Your task to perform on an android device: Go to Yahoo.com Image 0: 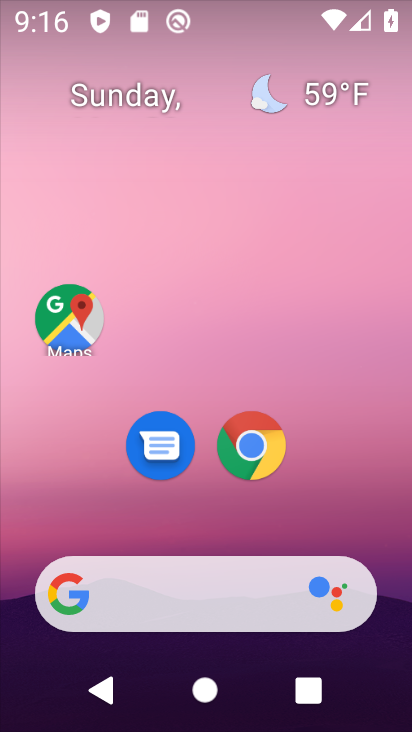
Step 0: click (272, 430)
Your task to perform on an android device: Go to Yahoo.com Image 1: 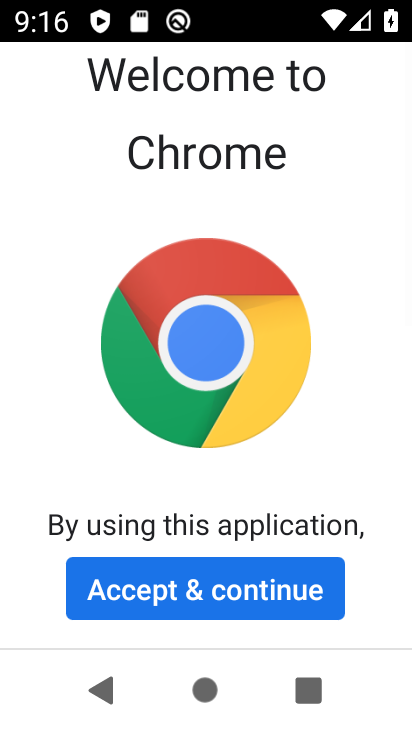
Step 1: click (258, 595)
Your task to perform on an android device: Go to Yahoo.com Image 2: 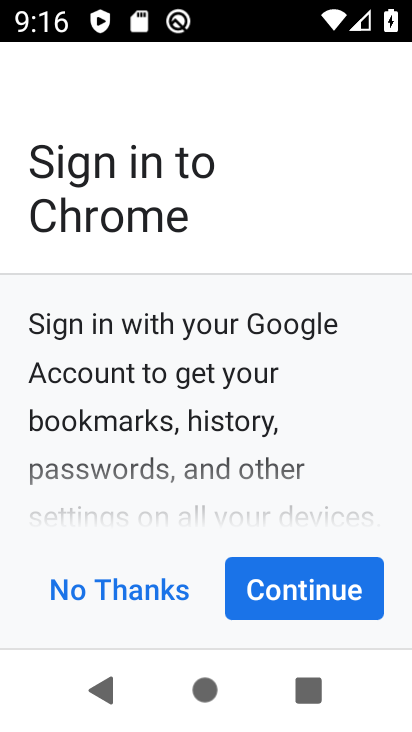
Step 2: click (338, 599)
Your task to perform on an android device: Go to Yahoo.com Image 3: 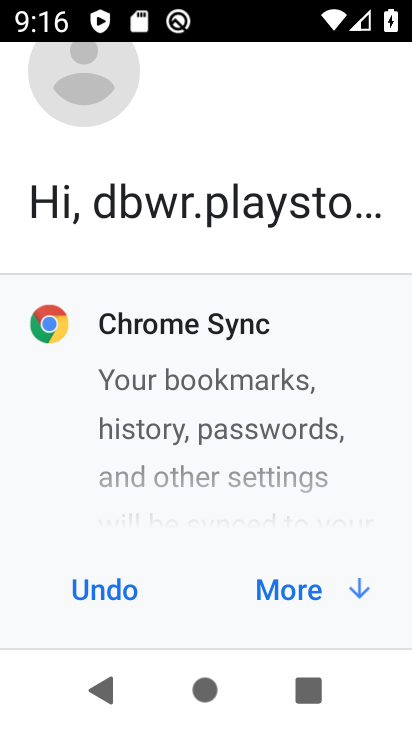
Step 3: click (324, 606)
Your task to perform on an android device: Go to Yahoo.com Image 4: 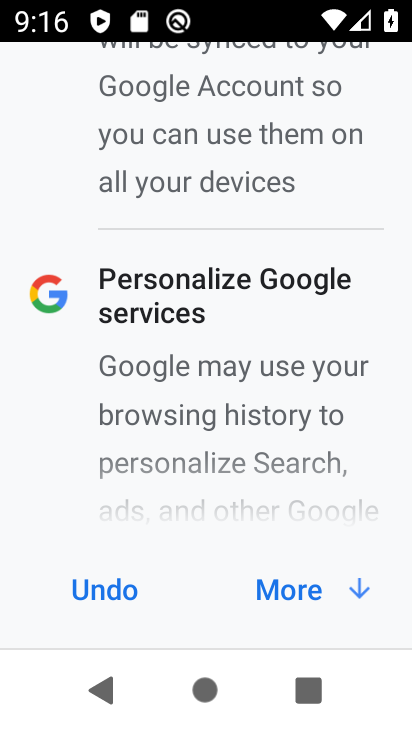
Step 4: click (319, 595)
Your task to perform on an android device: Go to Yahoo.com Image 5: 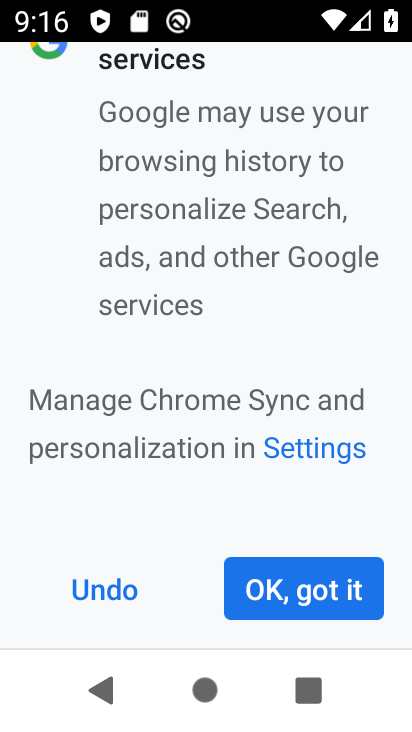
Step 5: click (323, 593)
Your task to perform on an android device: Go to Yahoo.com Image 6: 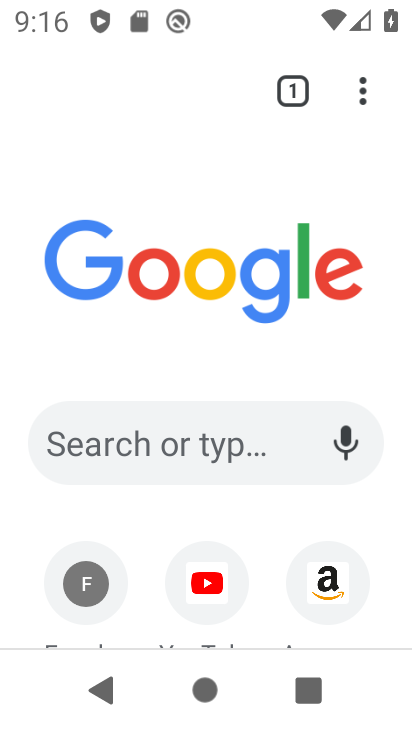
Step 6: drag from (355, 582) to (390, 489)
Your task to perform on an android device: Go to Yahoo.com Image 7: 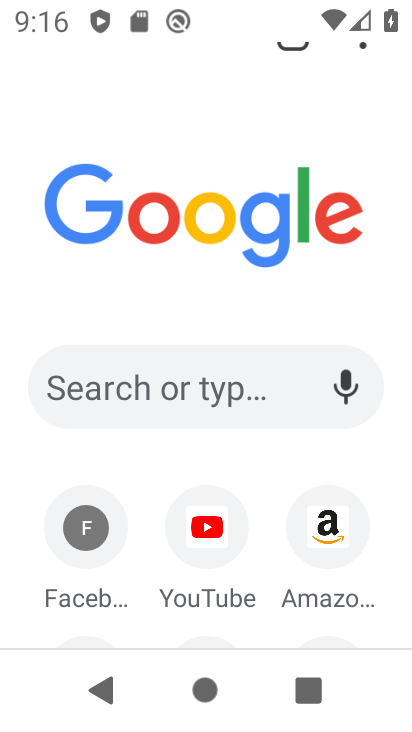
Step 7: click (313, 540)
Your task to perform on an android device: Go to Yahoo.com Image 8: 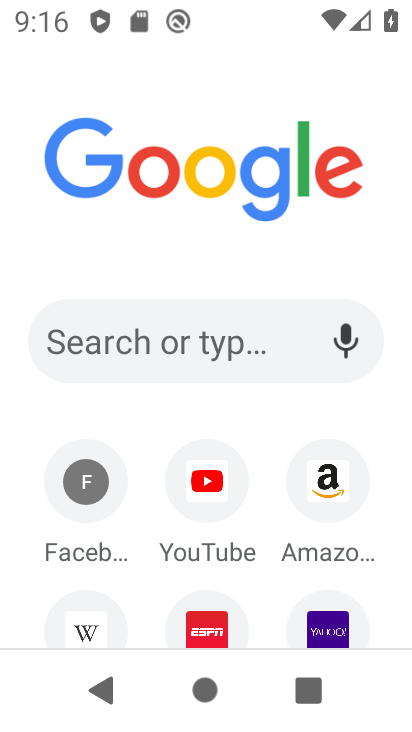
Step 8: click (353, 604)
Your task to perform on an android device: Go to Yahoo.com Image 9: 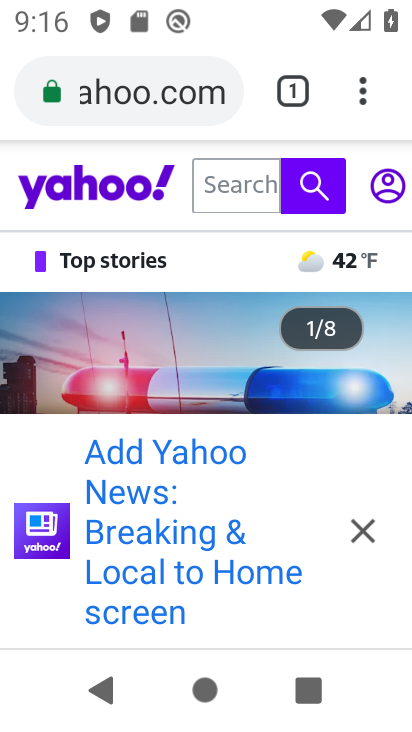
Step 9: task complete